Your task to perform on an android device: Open the web browser Image 0: 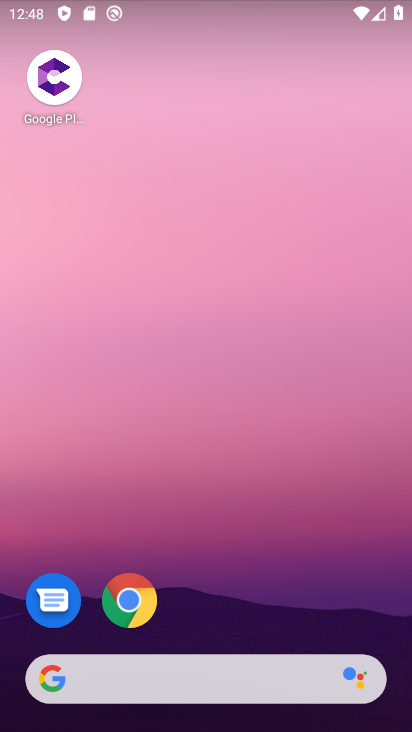
Step 0: click (126, 596)
Your task to perform on an android device: Open the web browser Image 1: 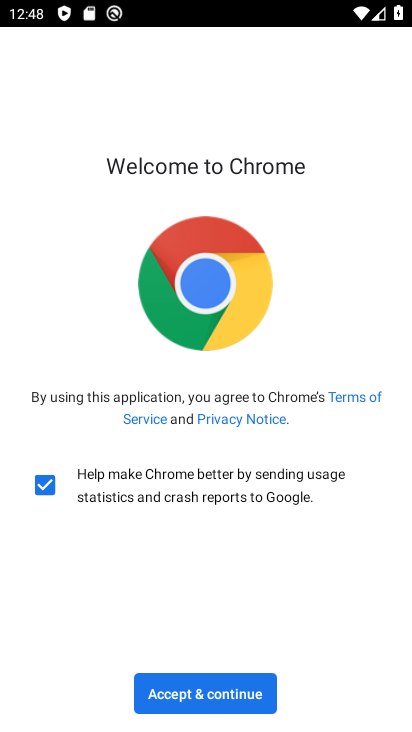
Step 1: click (199, 695)
Your task to perform on an android device: Open the web browser Image 2: 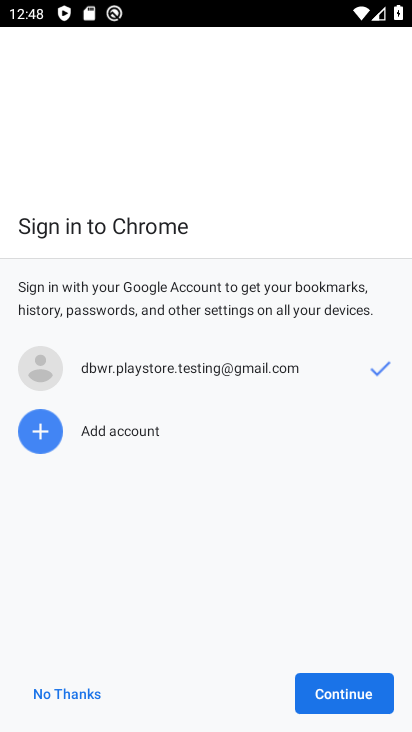
Step 2: click (337, 698)
Your task to perform on an android device: Open the web browser Image 3: 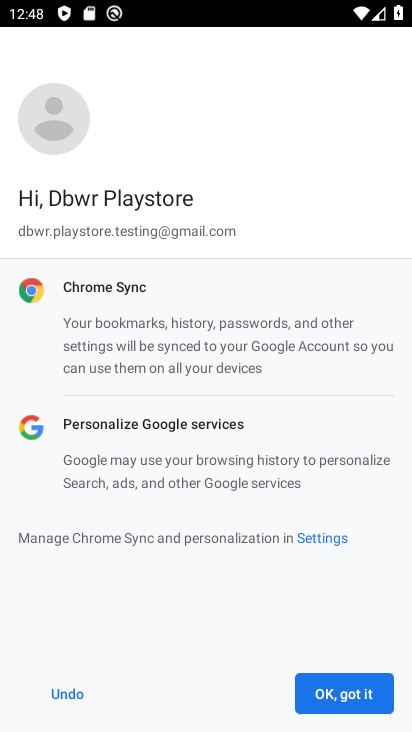
Step 3: click (337, 698)
Your task to perform on an android device: Open the web browser Image 4: 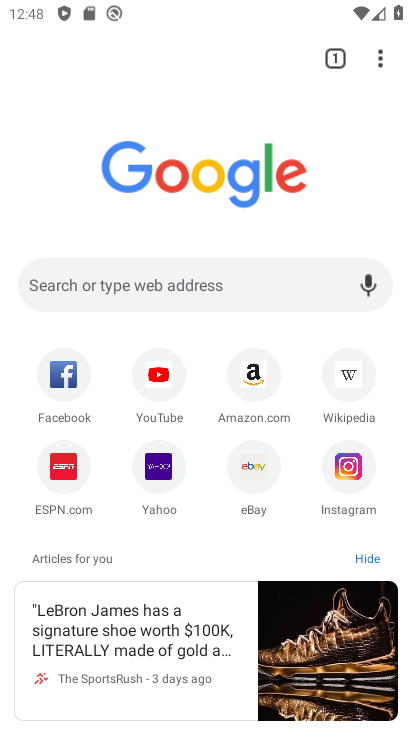
Step 4: task complete